Your task to perform on an android device: toggle data saver in the chrome app Image 0: 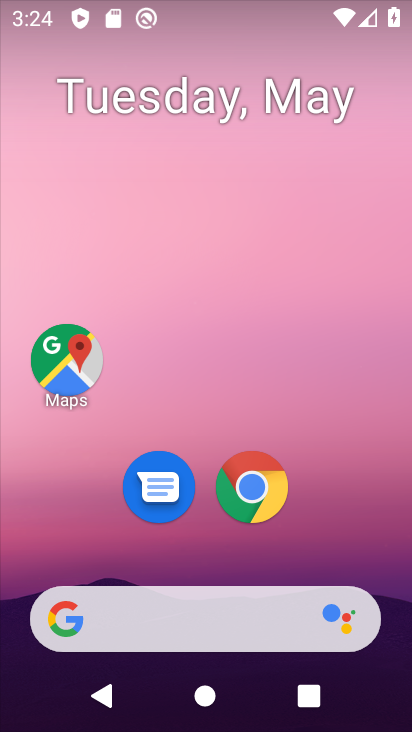
Step 0: drag from (200, 435) to (200, 88)
Your task to perform on an android device: toggle data saver in the chrome app Image 1: 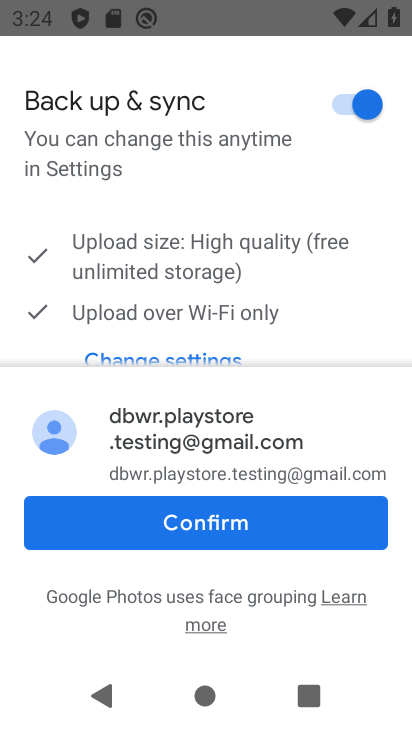
Step 1: press home button
Your task to perform on an android device: toggle data saver in the chrome app Image 2: 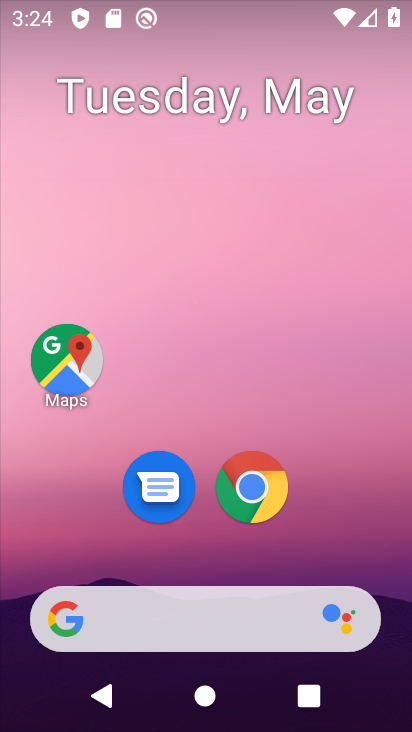
Step 2: click (256, 475)
Your task to perform on an android device: toggle data saver in the chrome app Image 3: 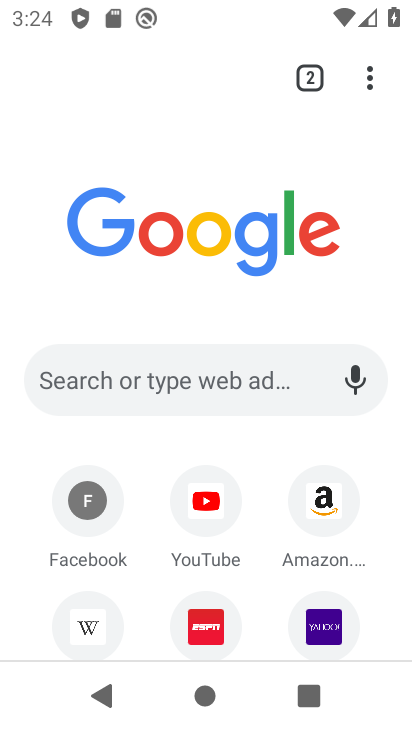
Step 3: click (369, 65)
Your task to perform on an android device: toggle data saver in the chrome app Image 4: 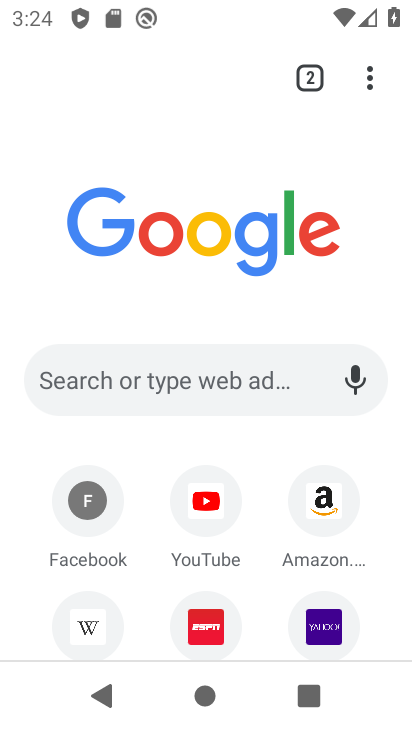
Step 4: click (370, 74)
Your task to perform on an android device: toggle data saver in the chrome app Image 5: 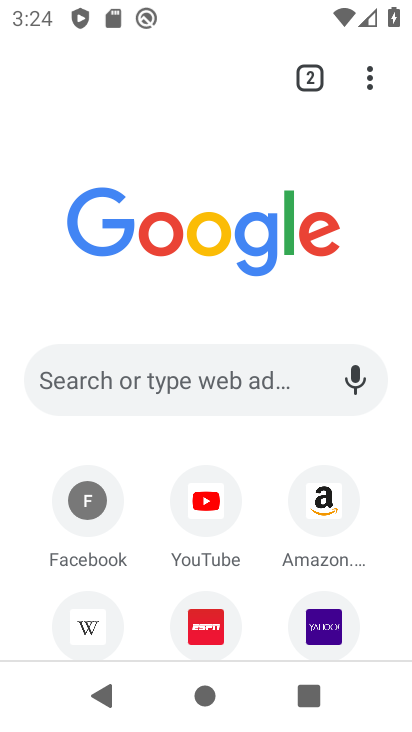
Step 5: click (369, 75)
Your task to perform on an android device: toggle data saver in the chrome app Image 6: 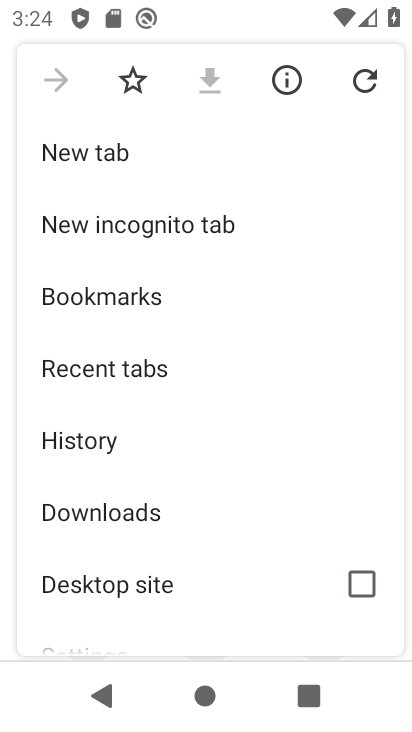
Step 6: drag from (216, 575) to (252, 139)
Your task to perform on an android device: toggle data saver in the chrome app Image 7: 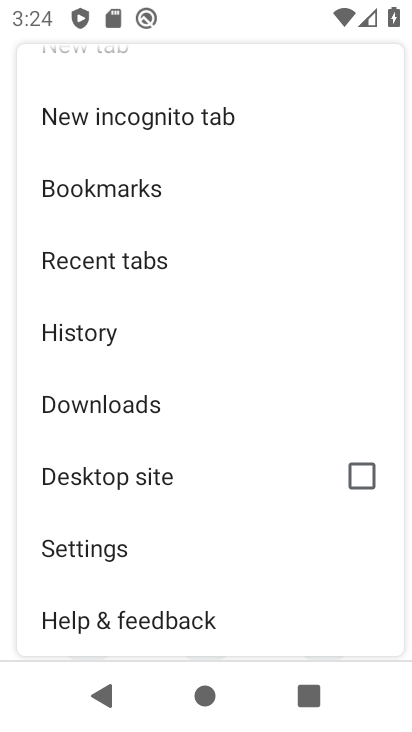
Step 7: click (135, 538)
Your task to perform on an android device: toggle data saver in the chrome app Image 8: 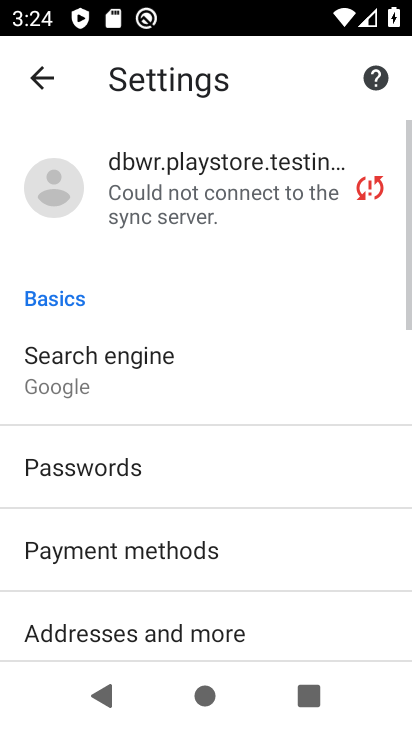
Step 8: drag from (286, 615) to (306, 314)
Your task to perform on an android device: toggle data saver in the chrome app Image 9: 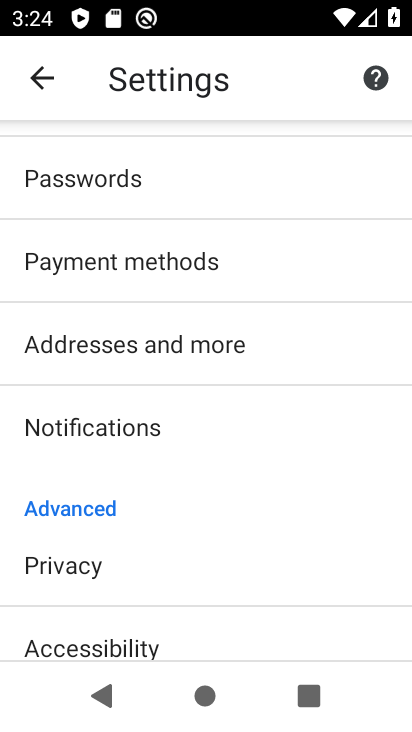
Step 9: drag from (216, 621) to (267, 164)
Your task to perform on an android device: toggle data saver in the chrome app Image 10: 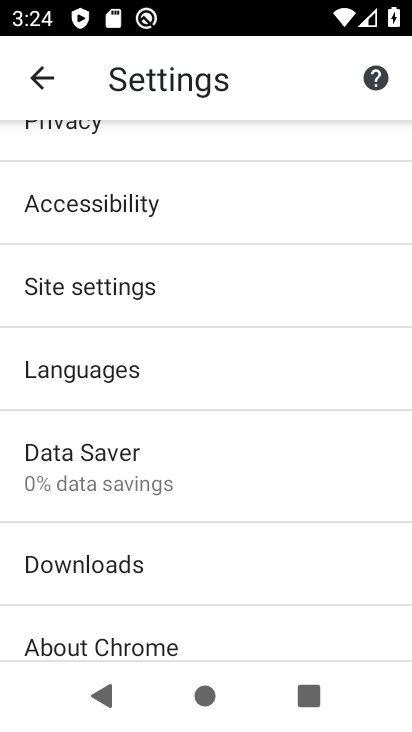
Step 10: click (189, 457)
Your task to perform on an android device: toggle data saver in the chrome app Image 11: 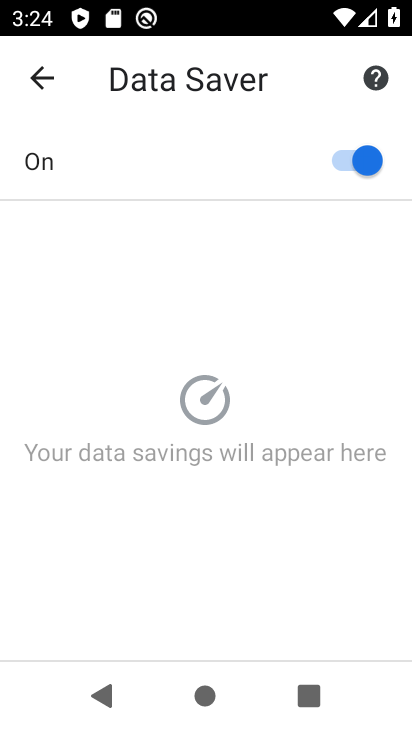
Step 11: click (352, 154)
Your task to perform on an android device: toggle data saver in the chrome app Image 12: 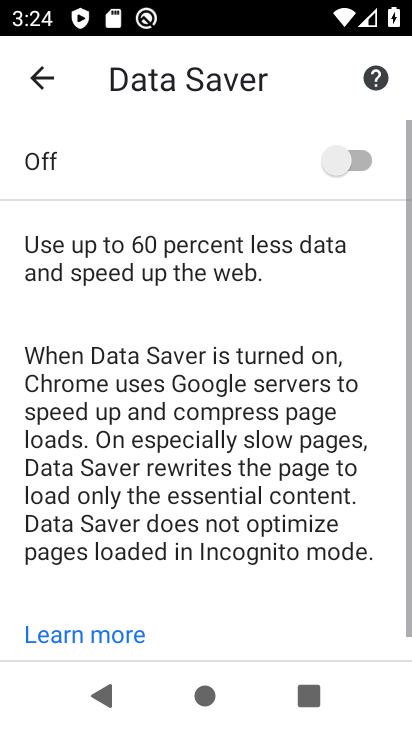
Step 12: task complete